Your task to perform on an android device: Search for sushi restaurants on Maps Image 0: 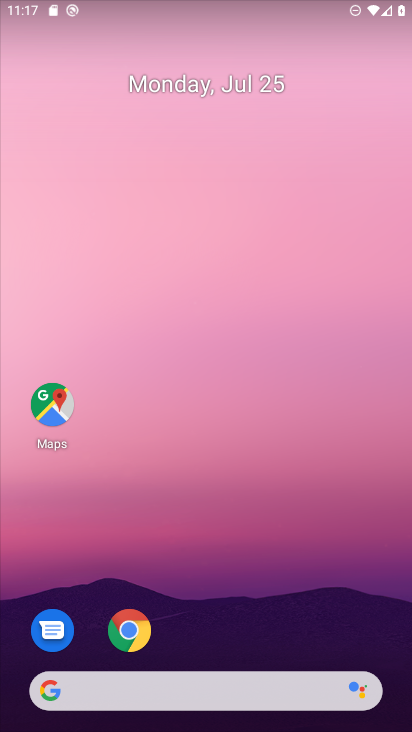
Step 0: click (51, 406)
Your task to perform on an android device: Search for sushi restaurants on Maps Image 1: 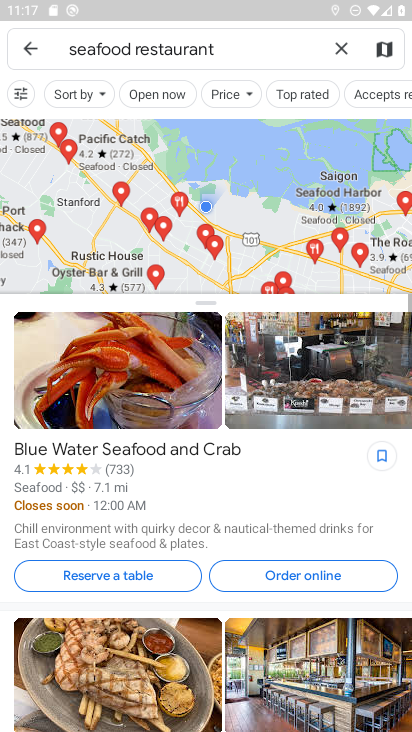
Step 1: click (340, 56)
Your task to perform on an android device: Search for sushi restaurants on Maps Image 2: 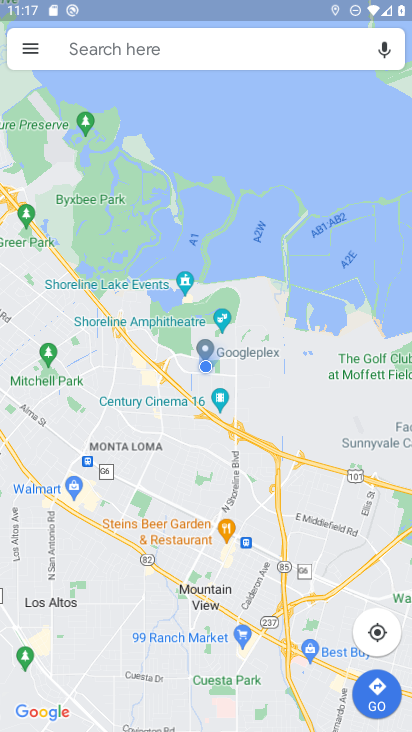
Step 2: click (102, 47)
Your task to perform on an android device: Search for sushi restaurants on Maps Image 3: 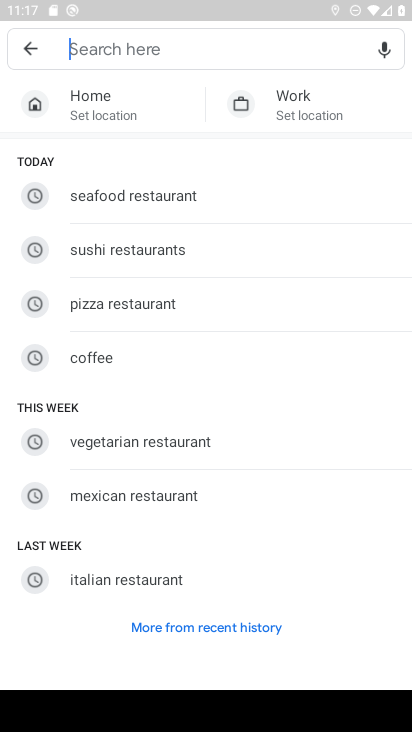
Step 3: click (118, 250)
Your task to perform on an android device: Search for sushi restaurants on Maps Image 4: 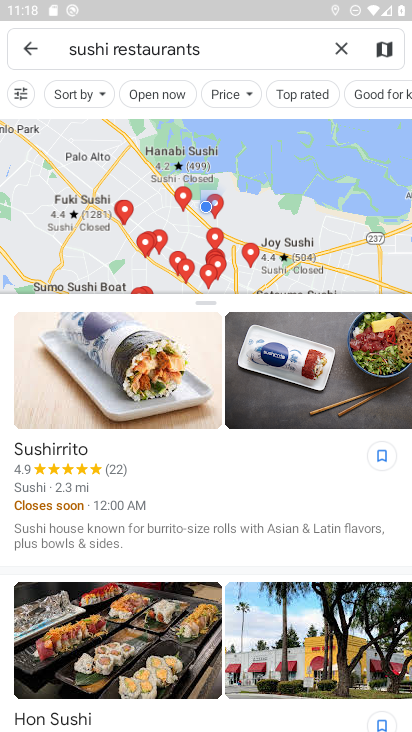
Step 4: task complete